Your task to perform on an android device: stop showing notifications on the lock screen Image 0: 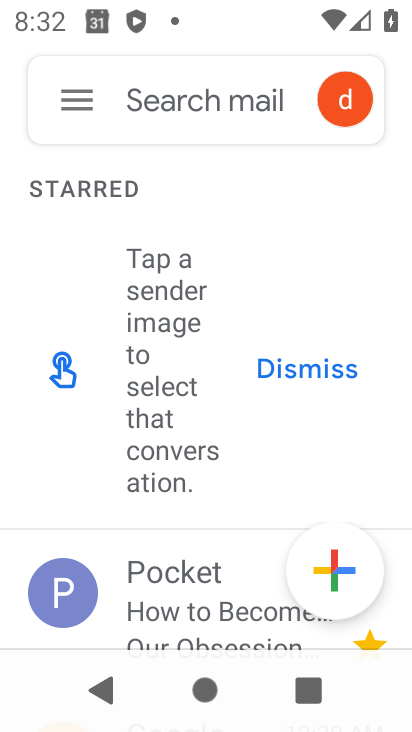
Step 0: press home button
Your task to perform on an android device: stop showing notifications on the lock screen Image 1: 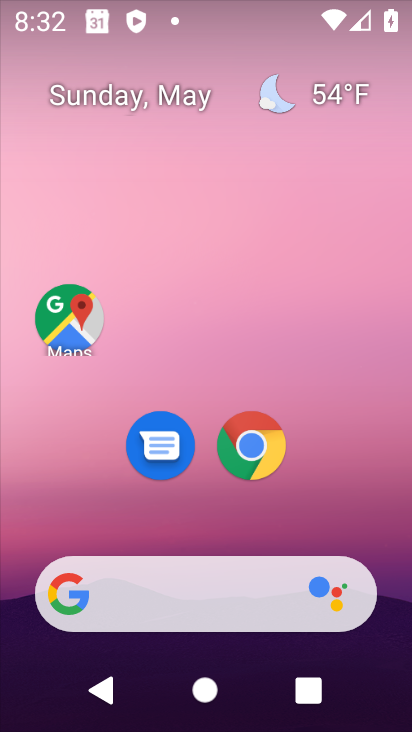
Step 1: drag from (384, 526) to (325, 55)
Your task to perform on an android device: stop showing notifications on the lock screen Image 2: 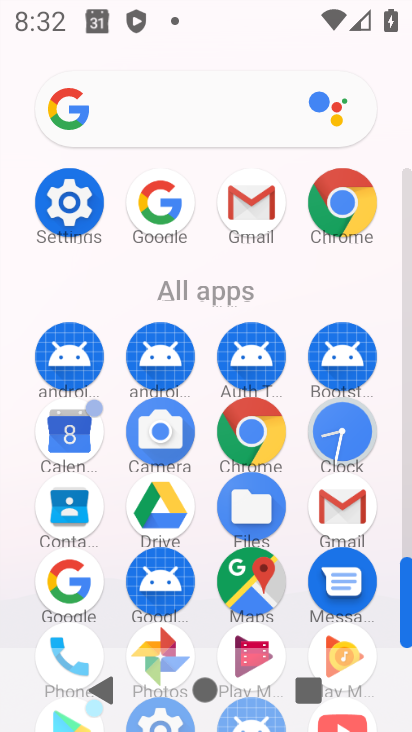
Step 2: click (76, 181)
Your task to perform on an android device: stop showing notifications on the lock screen Image 3: 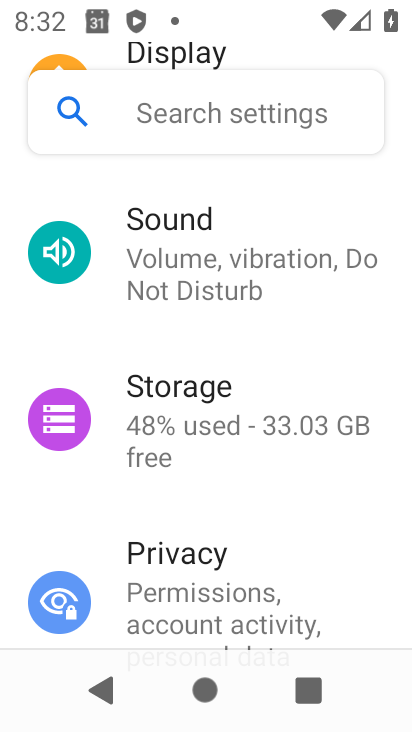
Step 3: drag from (300, 329) to (262, 676)
Your task to perform on an android device: stop showing notifications on the lock screen Image 4: 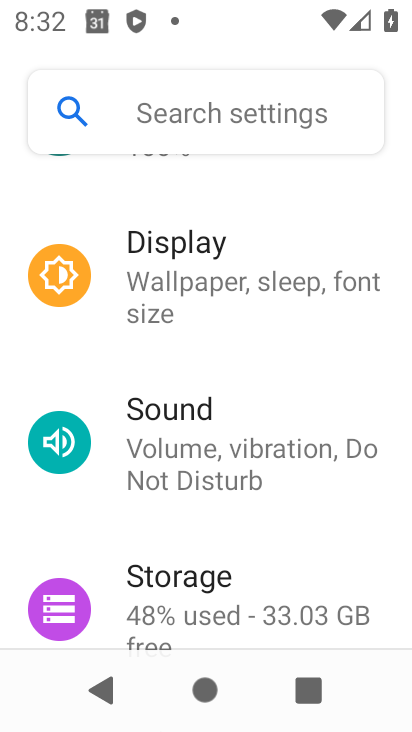
Step 4: drag from (258, 358) to (259, 576)
Your task to perform on an android device: stop showing notifications on the lock screen Image 5: 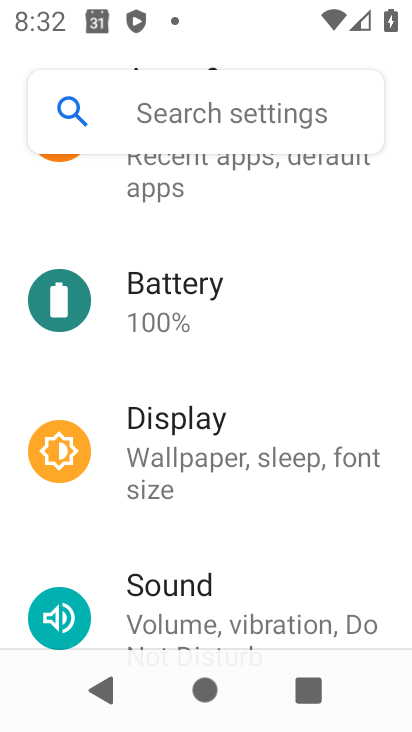
Step 5: drag from (287, 235) to (409, 517)
Your task to perform on an android device: stop showing notifications on the lock screen Image 6: 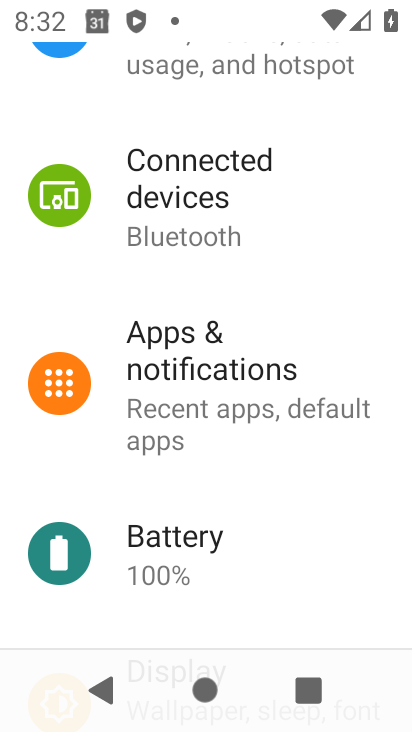
Step 6: click (260, 366)
Your task to perform on an android device: stop showing notifications on the lock screen Image 7: 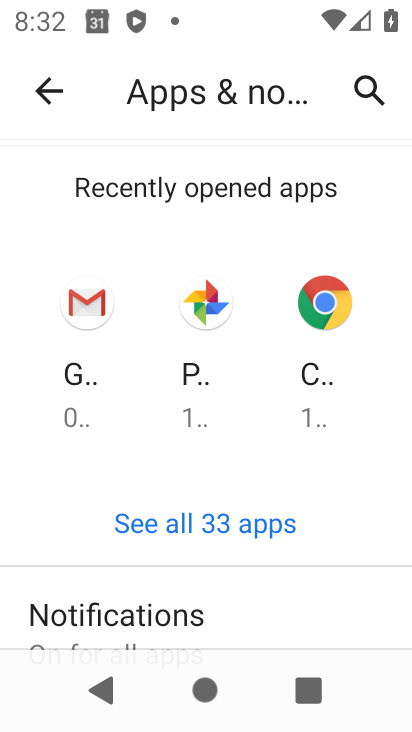
Step 7: drag from (304, 585) to (274, 255)
Your task to perform on an android device: stop showing notifications on the lock screen Image 8: 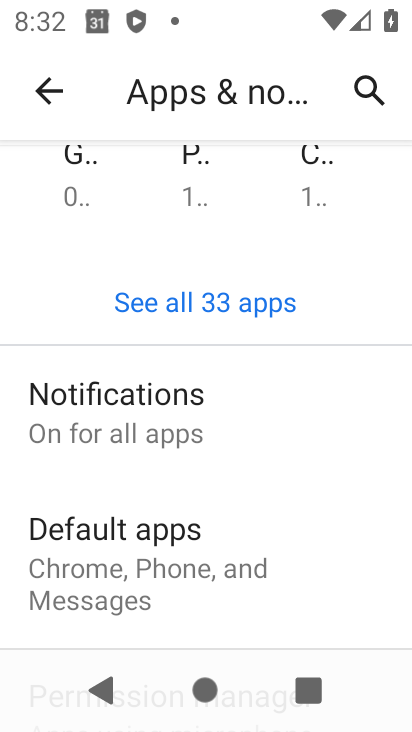
Step 8: click (257, 416)
Your task to perform on an android device: stop showing notifications on the lock screen Image 9: 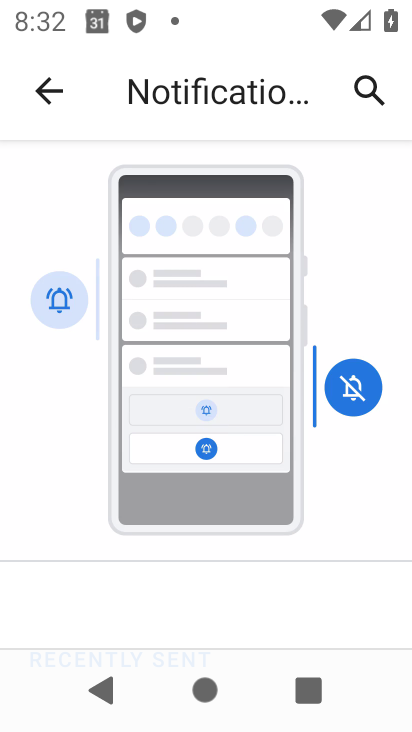
Step 9: drag from (299, 593) to (215, 138)
Your task to perform on an android device: stop showing notifications on the lock screen Image 10: 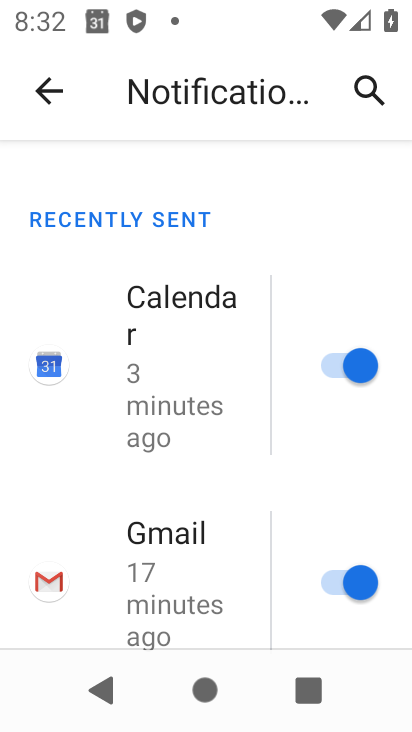
Step 10: drag from (263, 545) to (203, 141)
Your task to perform on an android device: stop showing notifications on the lock screen Image 11: 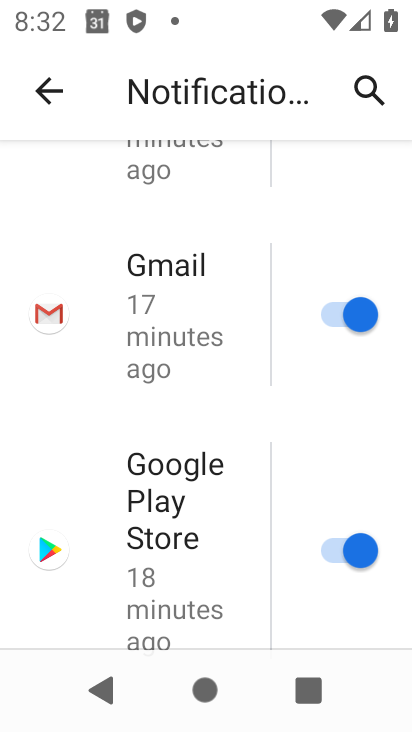
Step 11: drag from (252, 647) to (226, 303)
Your task to perform on an android device: stop showing notifications on the lock screen Image 12: 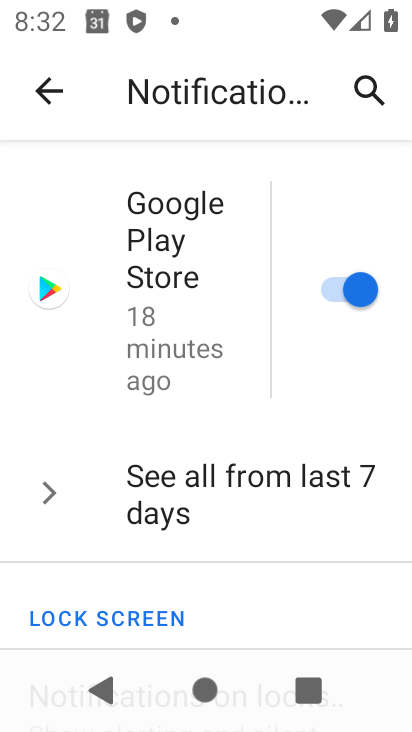
Step 12: drag from (266, 624) to (215, 141)
Your task to perform on an android device: stop showing notifications on the lock screen Image 13: 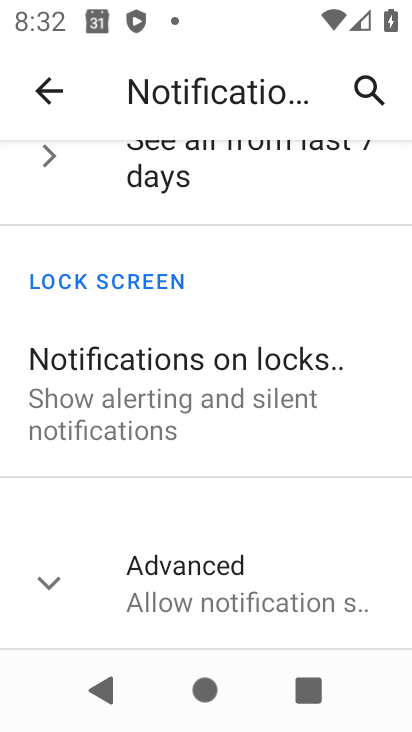
Step 13: click (248, 359)
Your task to perform on an android device: stop showing notifications on the lock screen Image 14: 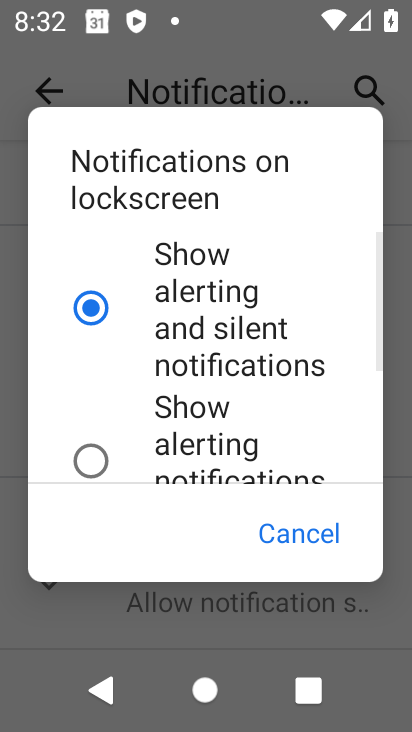
Step 14: drag from (291, 464) to (274, 160)
Your task to perform on an android device: stop showing notifications on the lock screen Image 15: 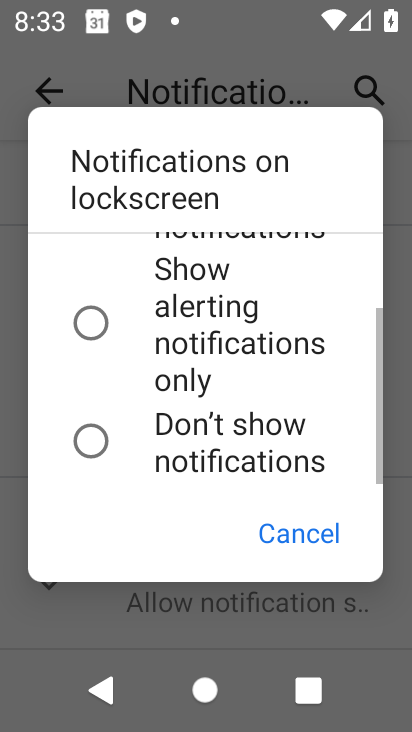
Step 15: click (262, 418)
Your task to perform on an android device: stop showing notifications on the lock screen Image 16: 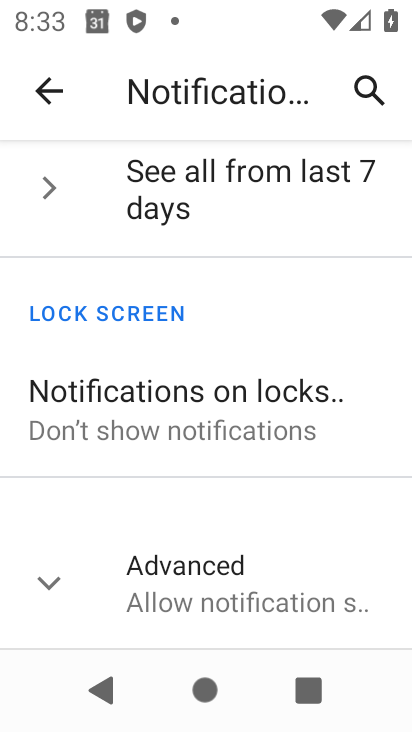
Step 16: task complete